Your task to perform on an android device: move a message to another label in the gmail app Image 0: 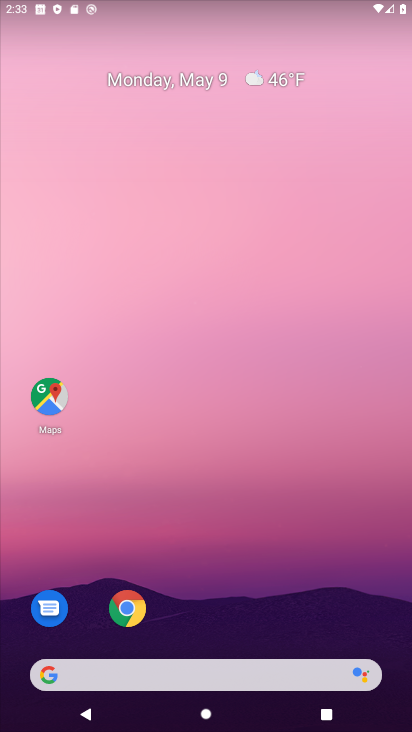
Step 0: drag from (242, 607) to (291, 192)
Your task to perform on an android device: move a message to another label in the gmail app Image 1: 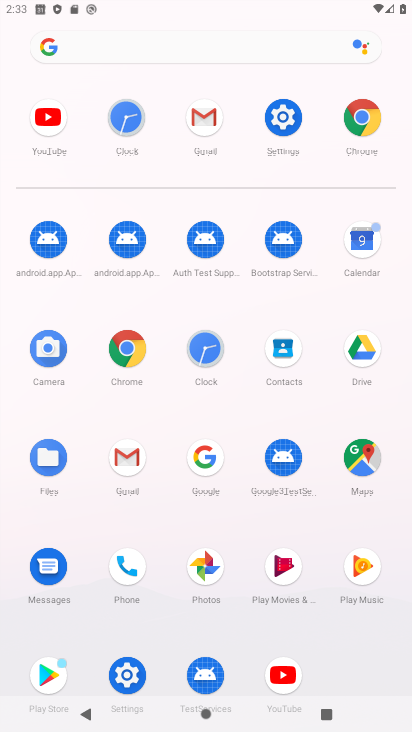
Step 1: click (129, 455)
Your task to perform on an android device: move a message to another label in the gmail app Image 2: 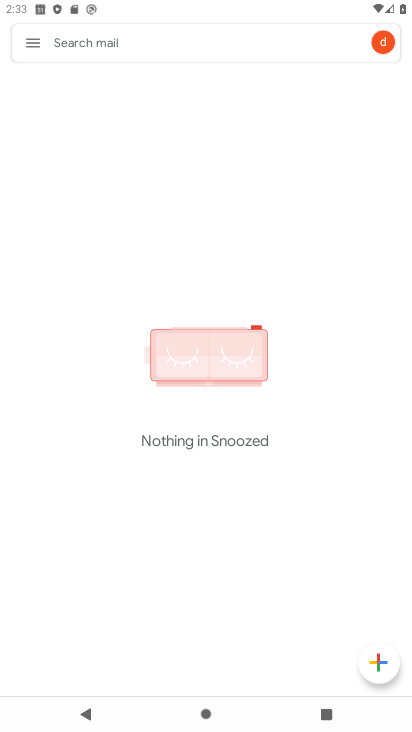
Step 2: click (26, 37)
Your task to perform on an android device: move a message to another label in the gmail app Image 3: 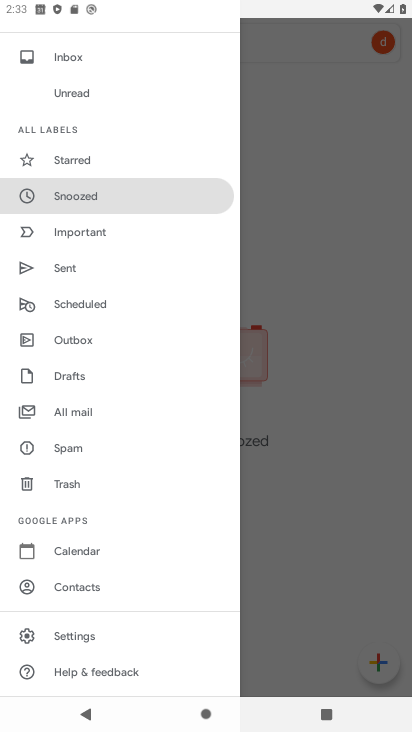
Step 3: click (80, 408)
Your task to perform on an android device: move a message to another label in the gmail app Image 4: 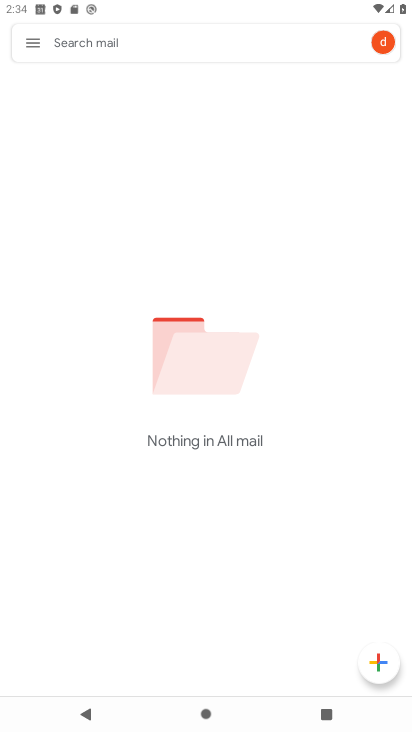
Step 4: task complete